Your task to perform on an android device: open sync settings in chrome Image 0: 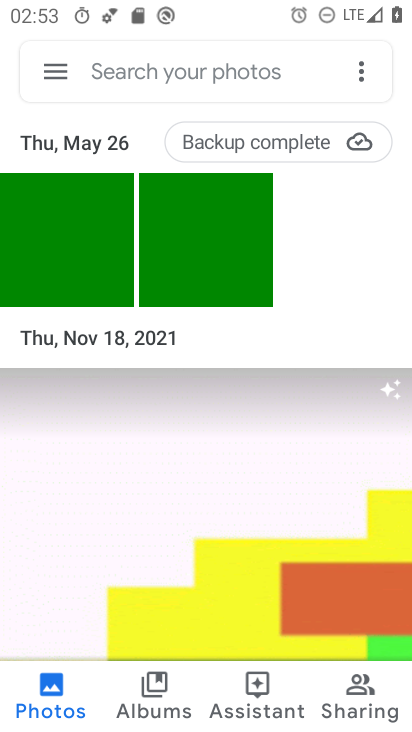
Step 0: press home button
Your task to perform on an android device: open sync settings in chrome Image 1: 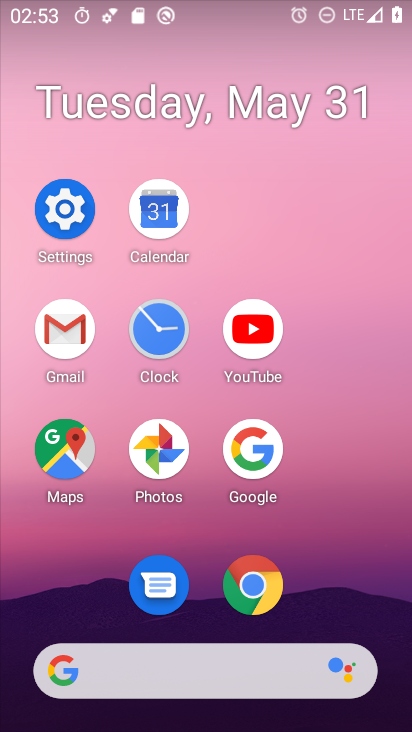
Step 1: click (237, 578)
Your task to perform on an android device: open sync settings in chrome Image 2: 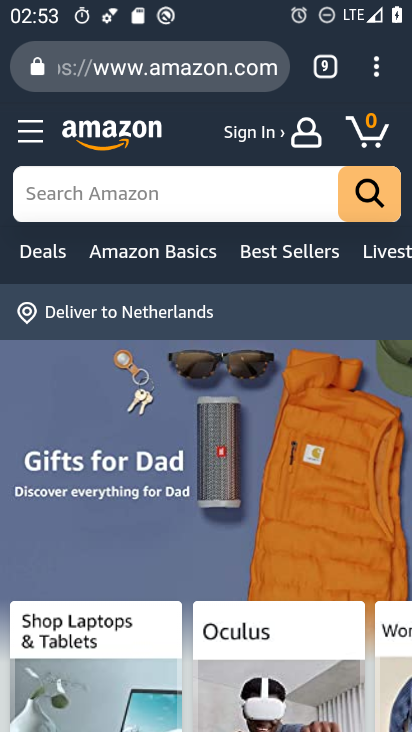
Step 2: click (372, 74)
Your task to perform on an android device: open sync settings in chrome Image 3: 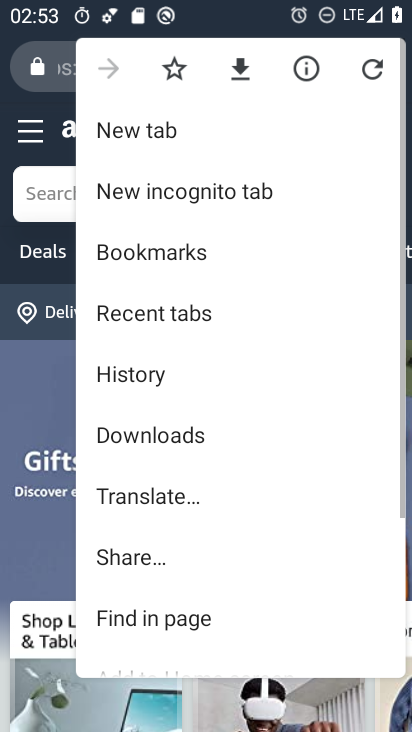
Step 3: drag from (213, 528) to (251, 218)
Your task to perform on an android device: open sync settings in chrome Image 4: 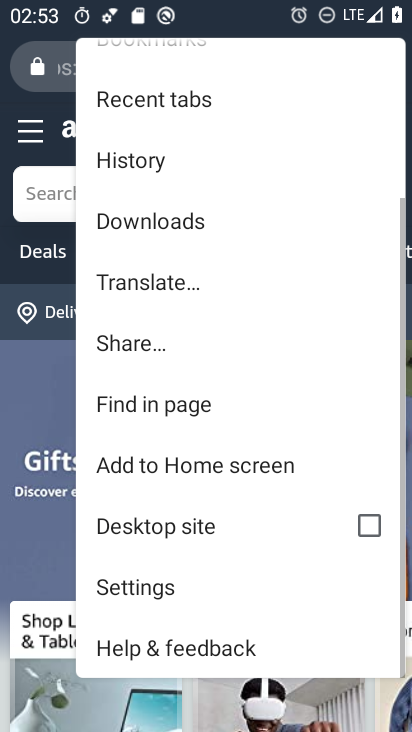
Step 4: click (153, 593)
Your task to perform on an android device: open sync settings in chrome Image 5: 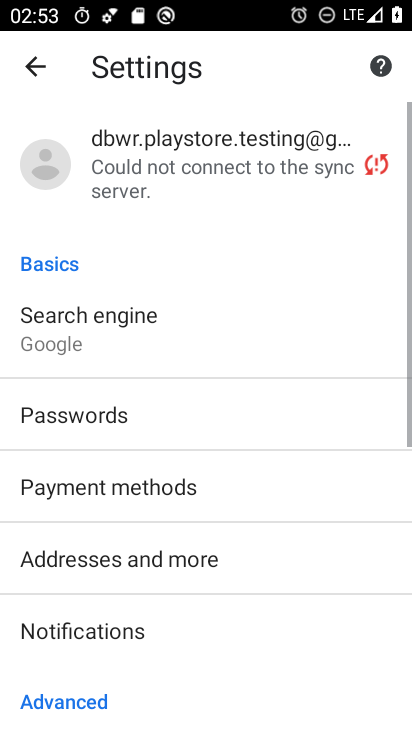
Step 5: drag from (153, 593) to (195, 172)
Your task to perform on an android device: open sync settings in chrome Image 6: 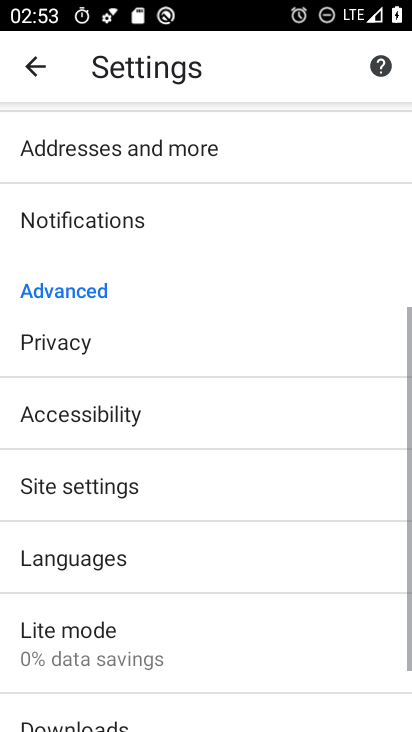
Step 6: drag from (142, 635) to (191, 281)
Your task to perform on an android device: open sync settings in chrome Image 7: 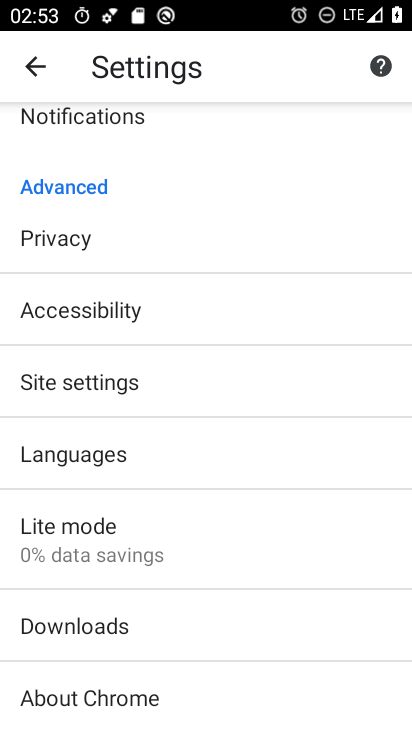
Step 7: click (185, 388)
Your task to perform on an android device: open sync settings in chrome Image 8: 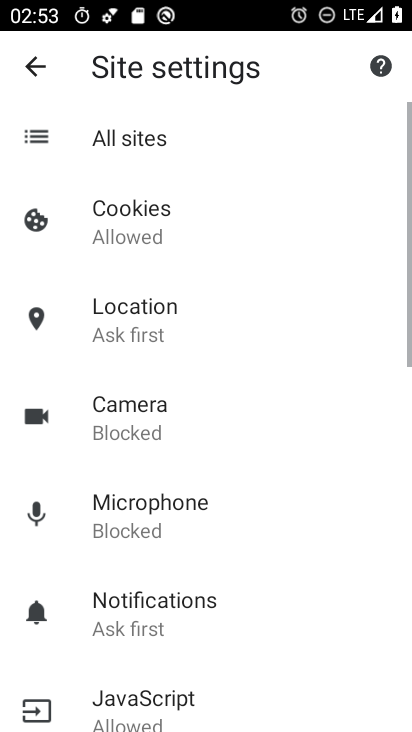
Step 8: drag from (225, 596) to (237, 257)
Your task to perform on an android device: open sync settings in chrome Image 9: 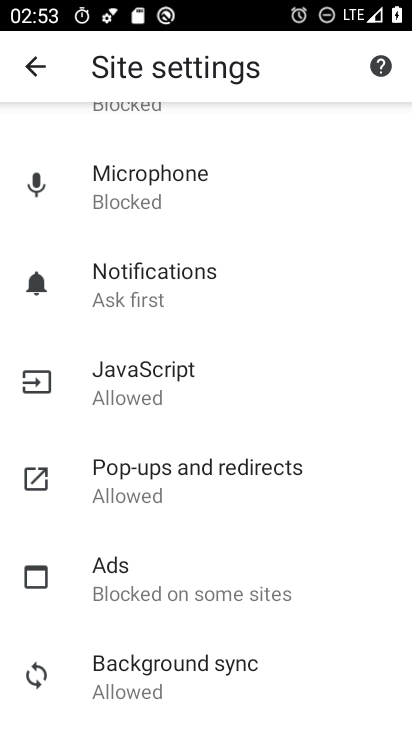
Step 9: click (185, 668)
Your task to perform on an android device: open sync settings in chrome Image 10: 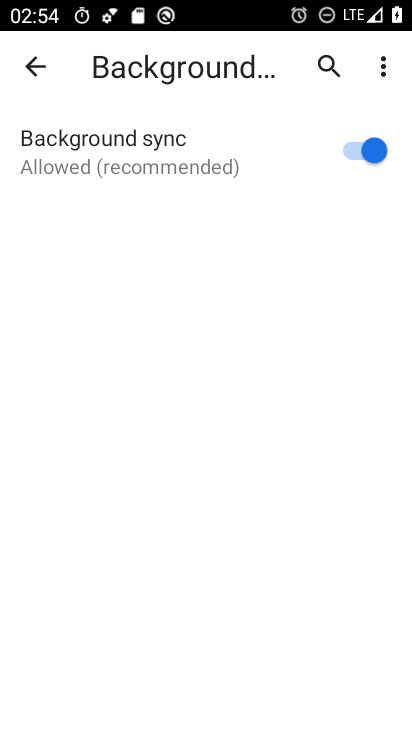
Step 10: task complete